Your task to perform on an android device: Open Reddit.com Image 0: 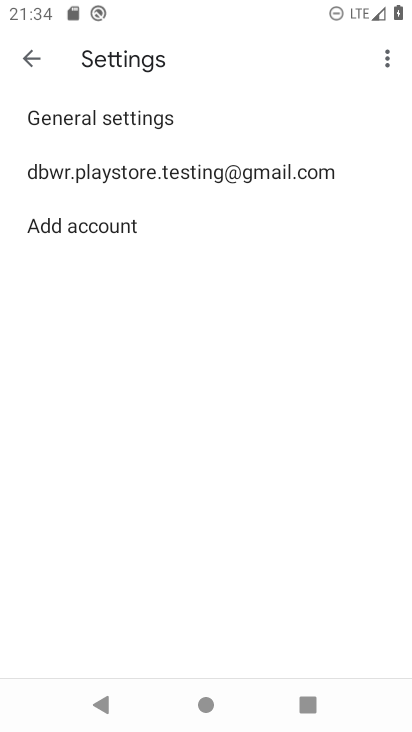
Step 0: press home button
Your task to perform on an android device: Open Reddit.com Image 1: 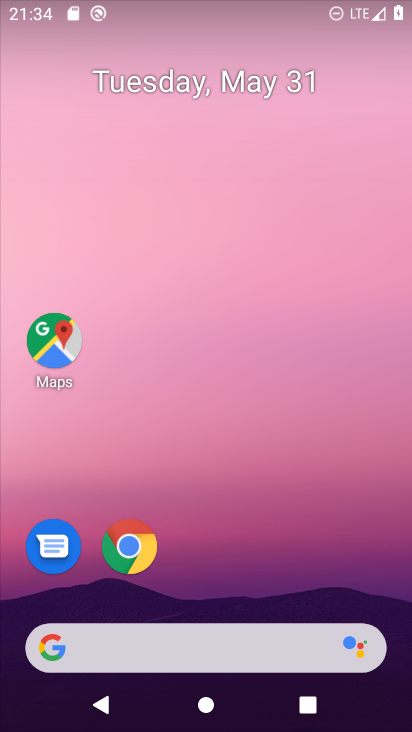
Step 1: drag from (399, 680) to (386, 45)
Your task to perform on an android device: Open Reddit.com Image 2: 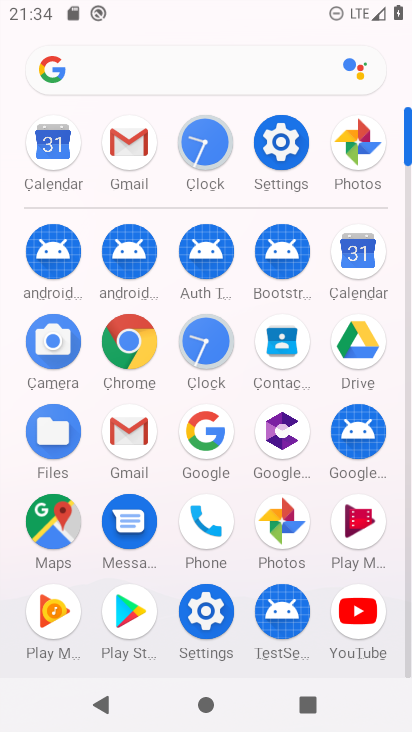
Step 2: click (121, 335)
Your task to perform on an android device: Open Reddit.com Image 3: 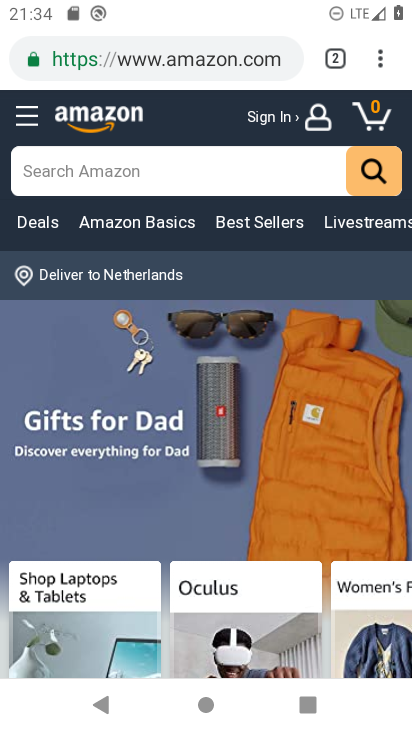
Step 3: click (288, 56)
Your task to perform on an android device: Open Reddit.com Image 4: 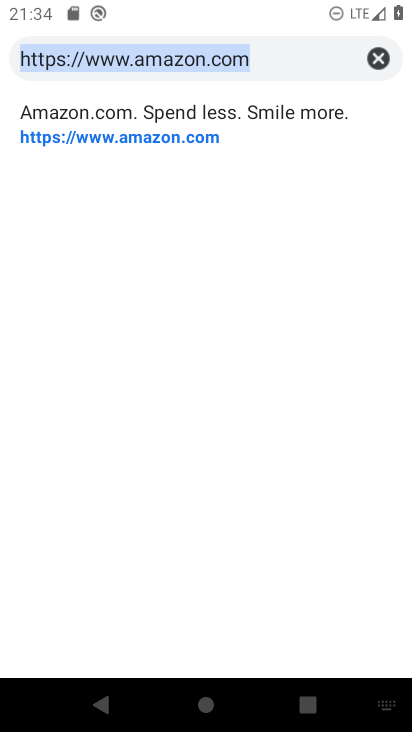
Step 4: click (372, 57)
Your task to perform on an android device: Open Reddit.com Image 5: 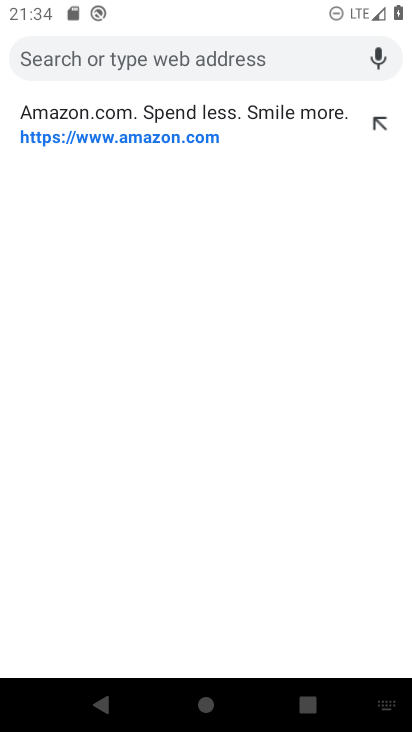
Step 5: type "Reddit.com"
Your task to perform on an android device: Open Reddit.com Image 6: 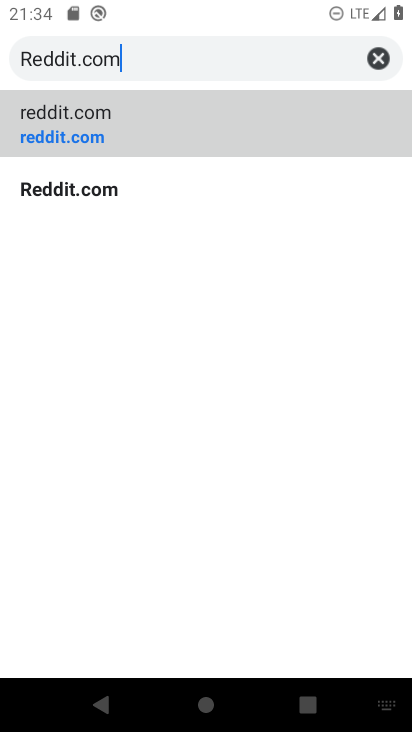
Step 6: click (106, 185)
Your task to perform on an android device: Open Reddit.com Image 7: 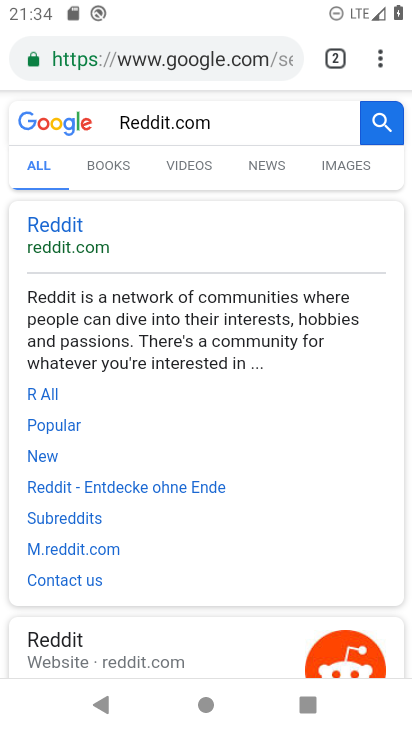
Step 7: task complete